Your task to perform on an android device: turn on priority inbox in the gmail app Image 0: 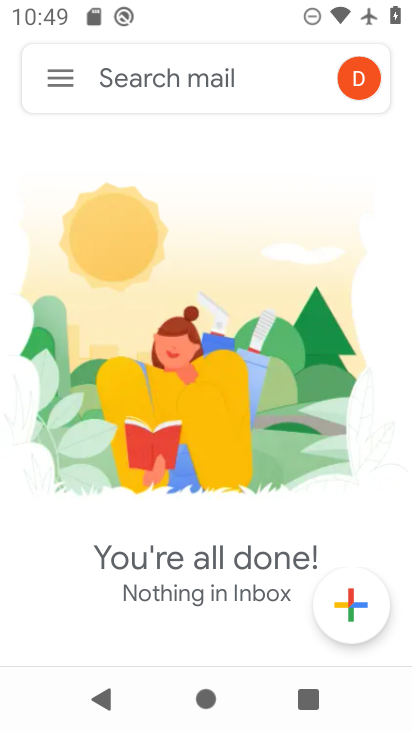
Step 0: click (66, 83)
Your task to perform on an android device: turn on priority inbox in the gmail app Image 1: 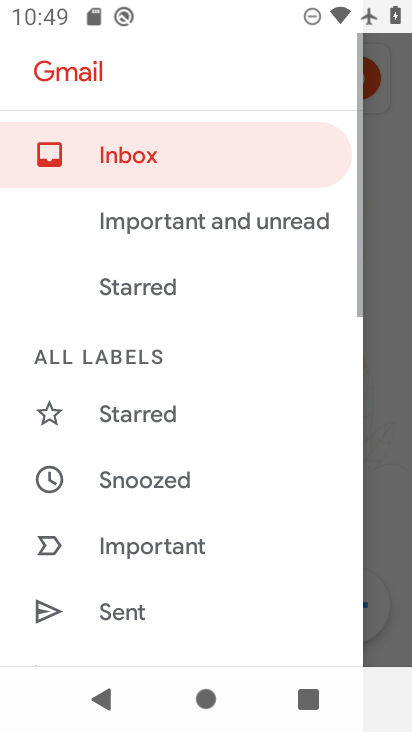
Step 1: drag from (173, 657) to (211, 162)
Your task to perform on an android device: turn on priority inbox in the gmail app Image 2: 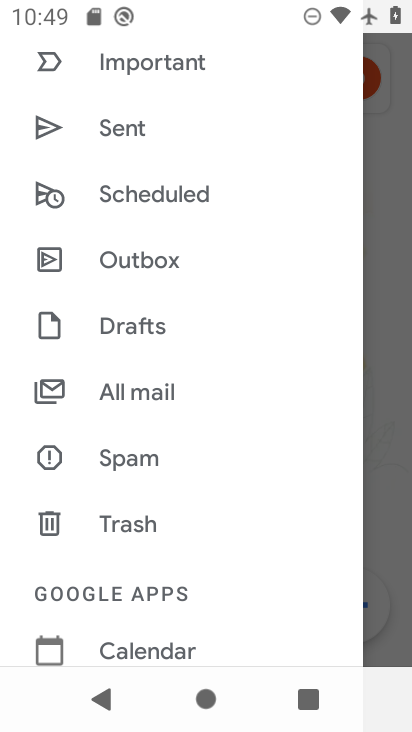
Step 2: drag from (181, 594) to (227, 148)
Your task to perform on an android device: turn on priority inbox in the gmail app Image 3: 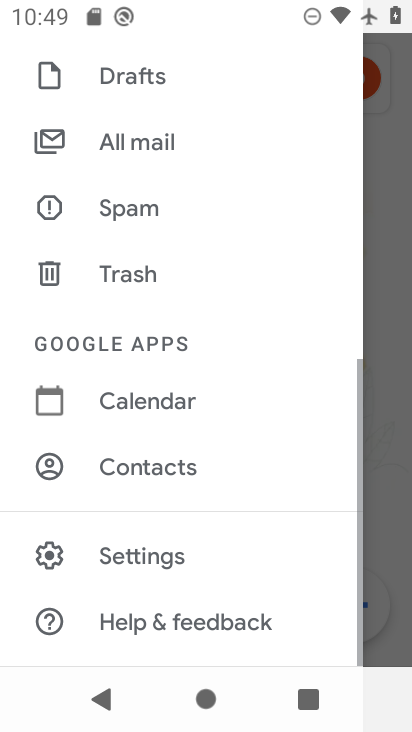
Step 3: click (122, 560)
Your task to perform on an android device: turn on priority inbox in the gmail app Image 4: 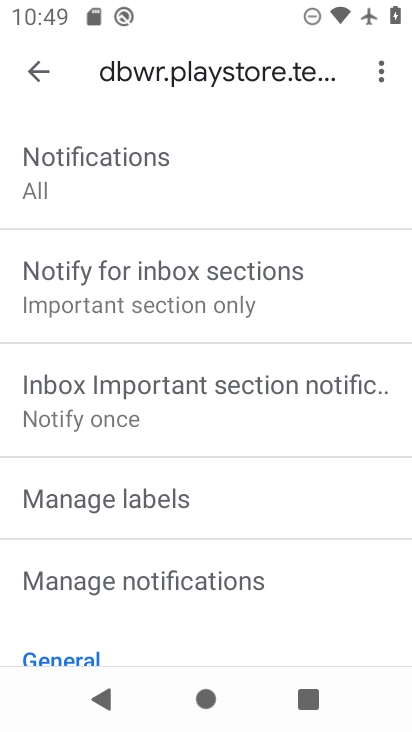
Step 4: click (130, 584)
Your task to perform on an android device: turn on priority inbox in the gmail app Image 5: 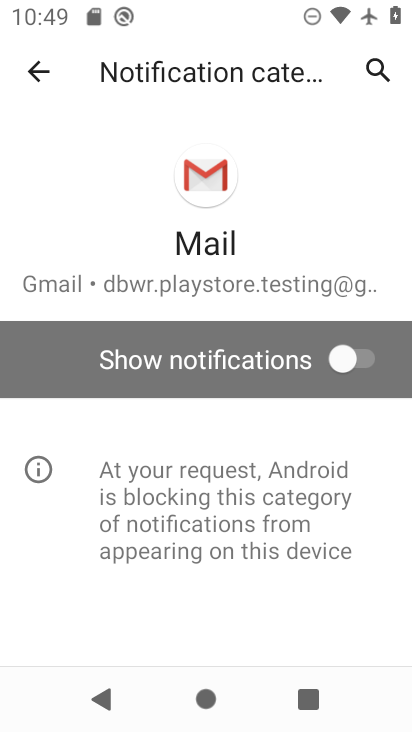
Step 5: click (39, 63)
Your task to perform on an android device: turn on priority inbox in the gmail app Image 6: 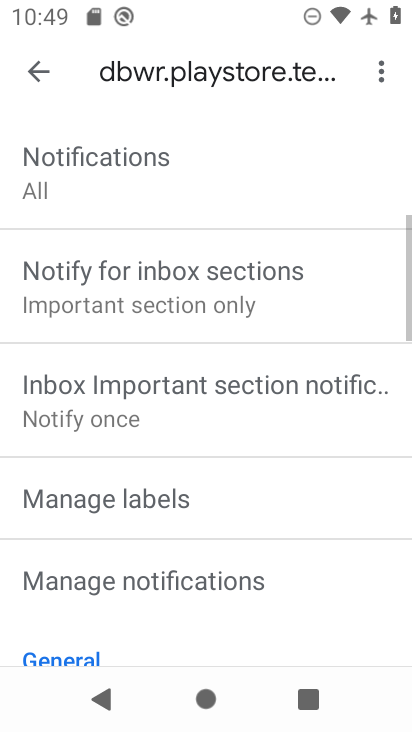
Step 6: drag from (245, 604) to (278, 170)
Your task to perform on an android device: turn on priority inbox in the gmail app Image 7: 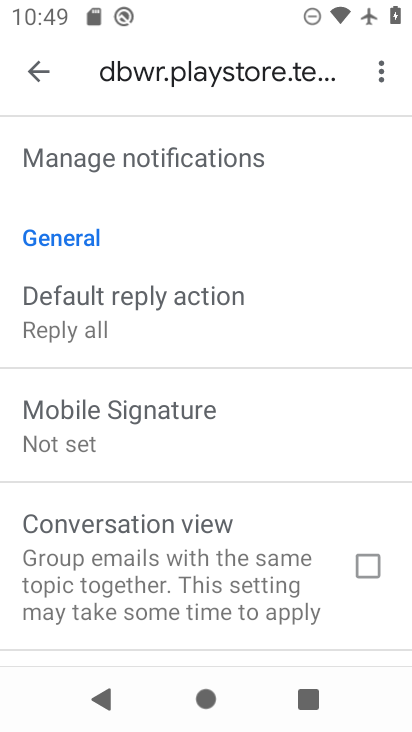
Step 7: drag from (230, 531) to (239, 156)
Your task to perform on an android device: turn on priority inbox in the gmail app Image 8: 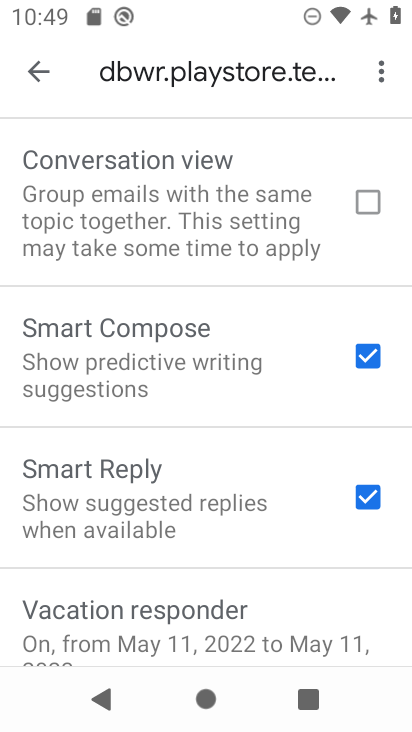
Step 8: drag from (201, 582) to (230, 197)
Your task to perform on an android device: turn on priority inbox in the gmail app Image 9: 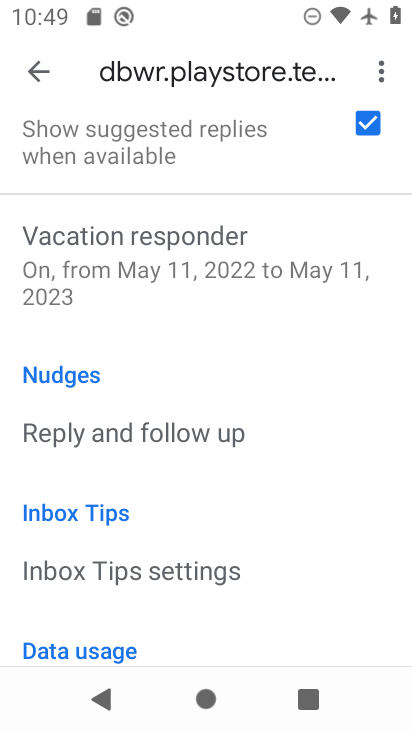
Step 9: drag from (212, 569) to (201, 166)
Your task to perform on an android device: turn on priority inbox in the gmail app Image 10: 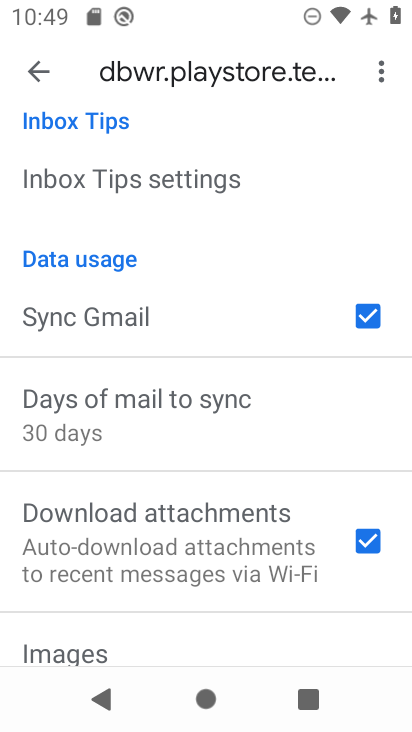
Step 10: drag from (203, 615) to (233, 228)
Your task to perform on an android device: turn on priority inbox in the gmail app Image 11: 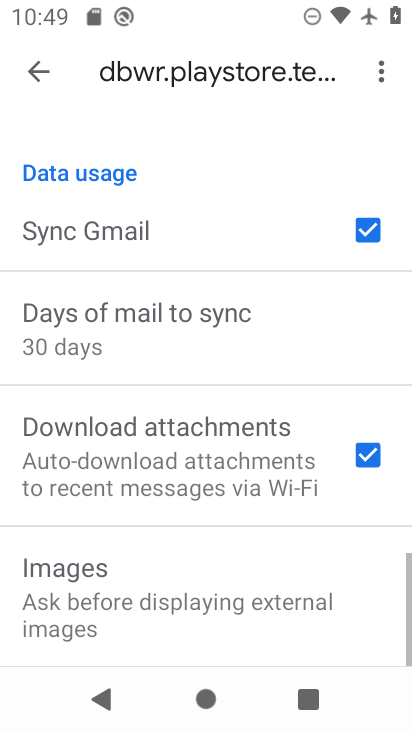
Step 11: drag from (237, 213) to (259, 648)
Your task to perform on an android device: turn on priority inbox in the gmail app Image 12: 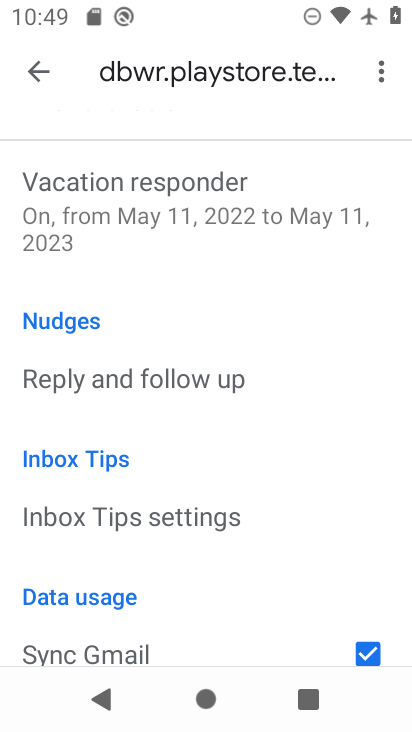
Step 12: drag from (250, 286) to (244, 672)
Your task to perform on an android device: turn on priority inbox in the gmail app Image 13: 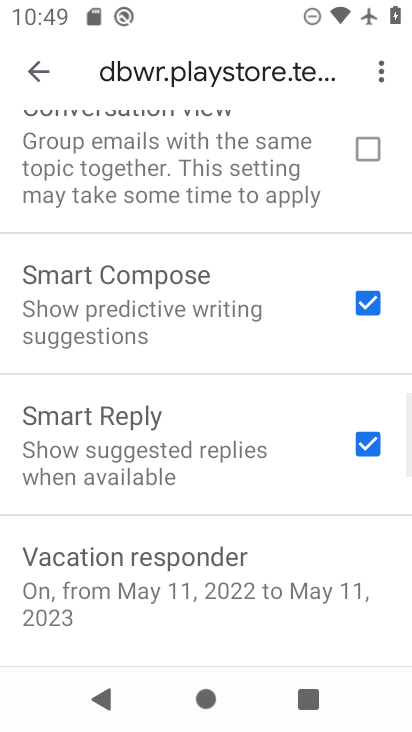
Step 13: drag from (215, 269) to (216, 627)
Your task to perform on an android device: turn on priority inbox in the gmail app Image 14: 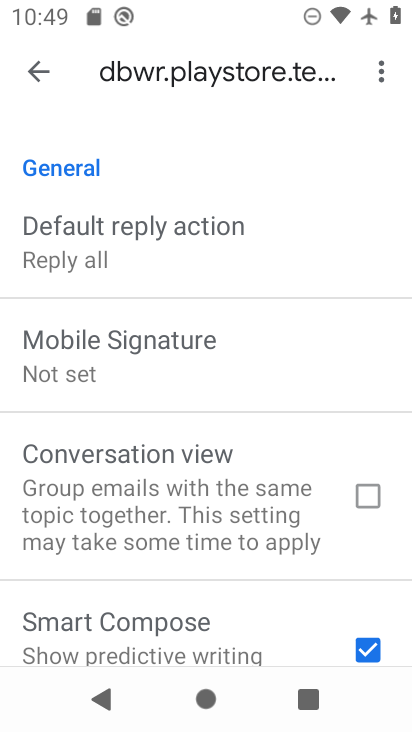
Step 14: drag from (211, 287) to (220, 637)
Your task to perform on an android device: turn on priority inbox in the gmail app Image 15: 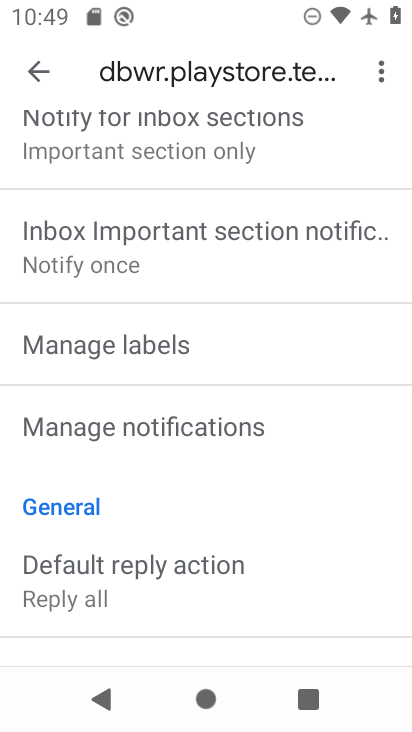
Step 15: drag from (222, 219) to (227, 612)
Your task to perform on an android device: turn on priority inbox in the gmail app Image 16: 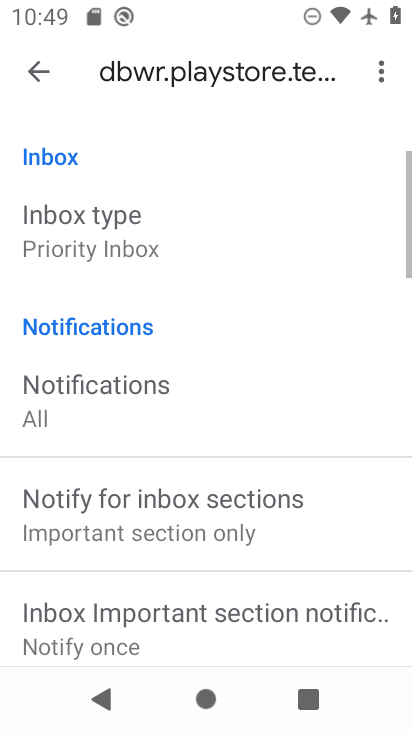
Step 16: click (162, 204)
Your task to perform on an android device: turn on priority inbox in the gmail app Image 17: 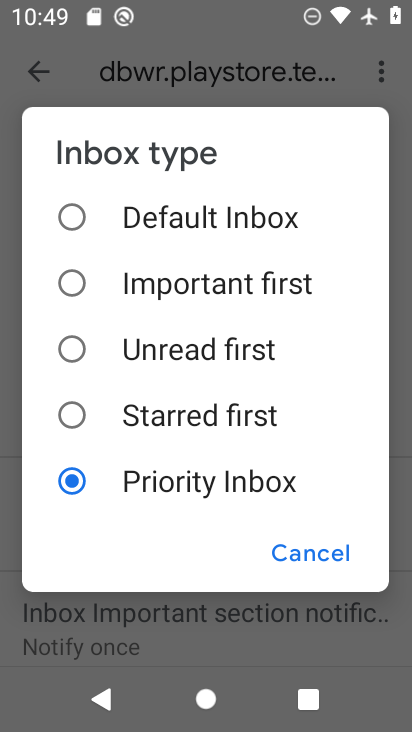
Step 17: click (165, 484)
Your task to perform on an android device: turn on priority inbox in the gmail app Image 18: 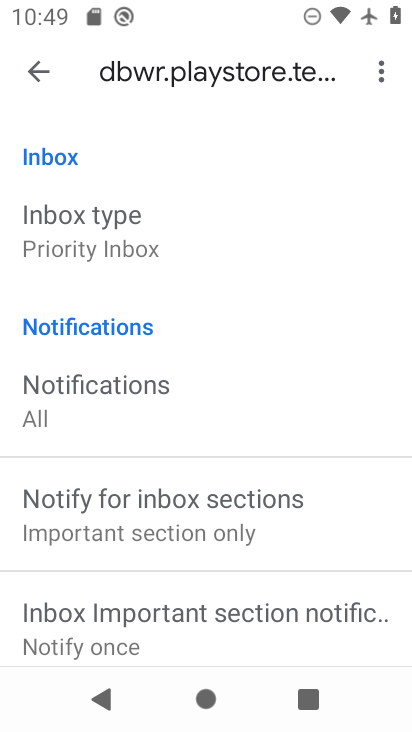
Step 18: task complete